Your task to perform on an android device: toggle improve location accuracy Image 0: 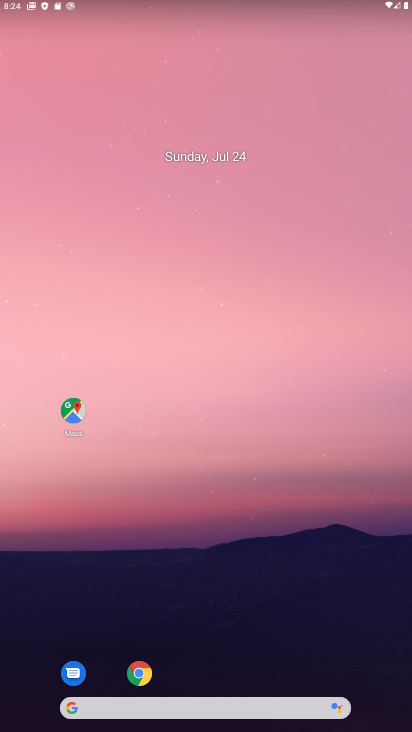
Step 0: press home button
Your task to perform on an android device: toggle improve location accuracy Image 1: 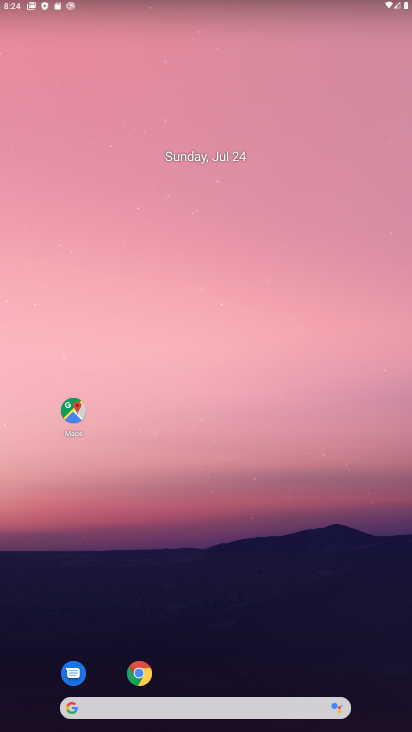
Step 1: drag from (229, 692) to (162, 221)
Your task to perform on an android device: toggle improve location accuracy Image 2: 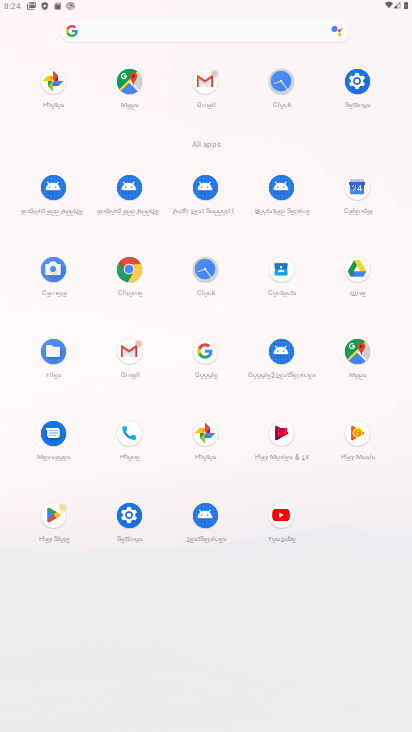
Step 2: click (354, 79)
Your task to perform on an android device: toggle improve location accuracy Image 3: 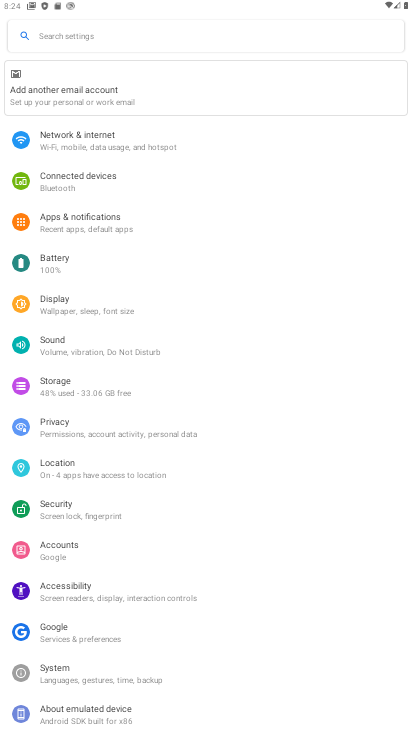
Step 3: click (72, 475)
Your task to perform on an android device: toggle improve location accuracy Image 4: 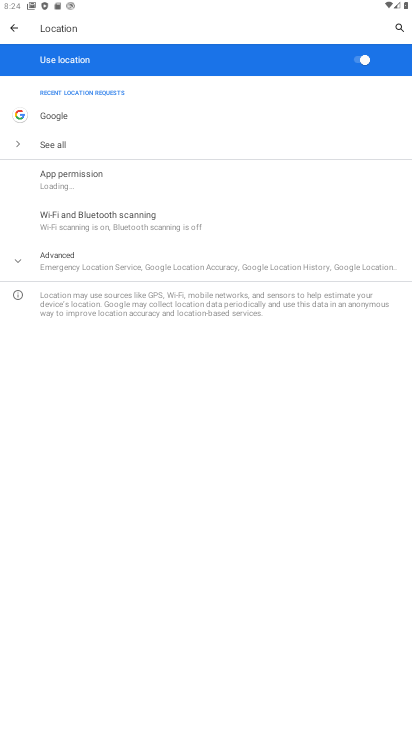
Step 4: click (92, 261)
Your task to perform on an android device: toggle improve location accuracy Image 5: 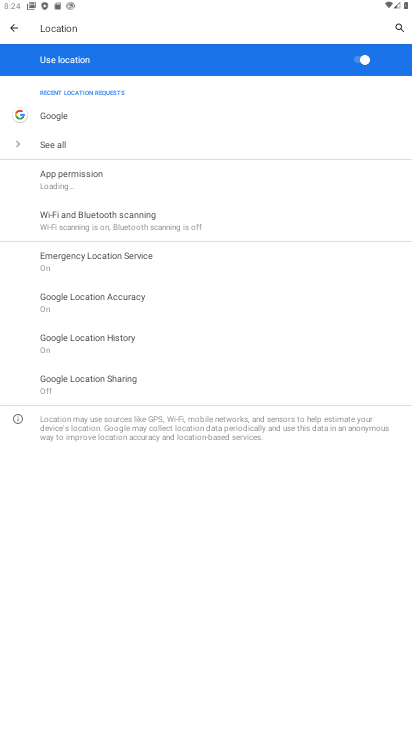
Step 5: click (115, 295)
Your task to perform on an android device: toggle improve location accuracy Image 6: 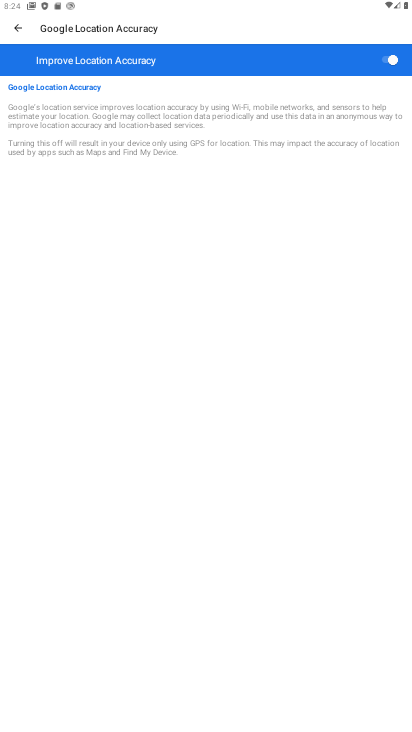
Step 6: click (378, 63)
Your task to perform on an android device: toggle improve location accuracy Image 7: 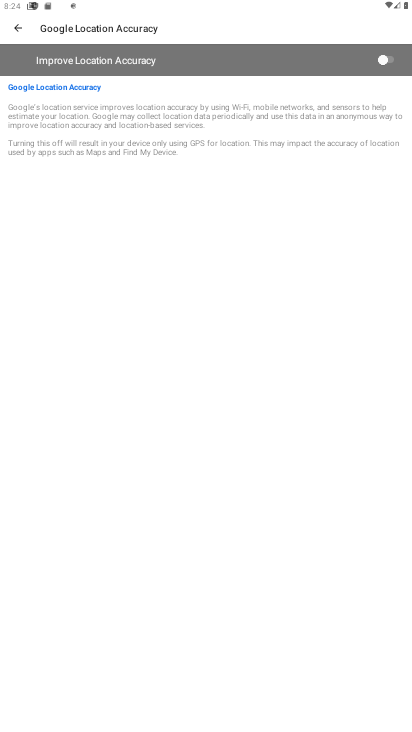
Step 7: task complete